Your task to perform on an android device: toggle notification dots Image 0: 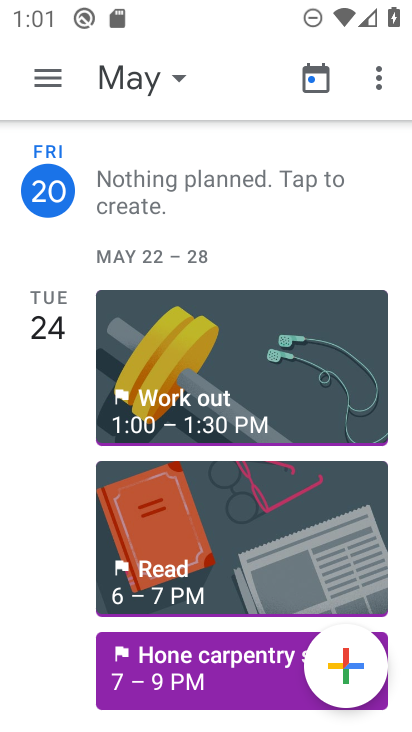
Step 0: press home button
Your task to perform on an android device: toggle notification dots Image 1: 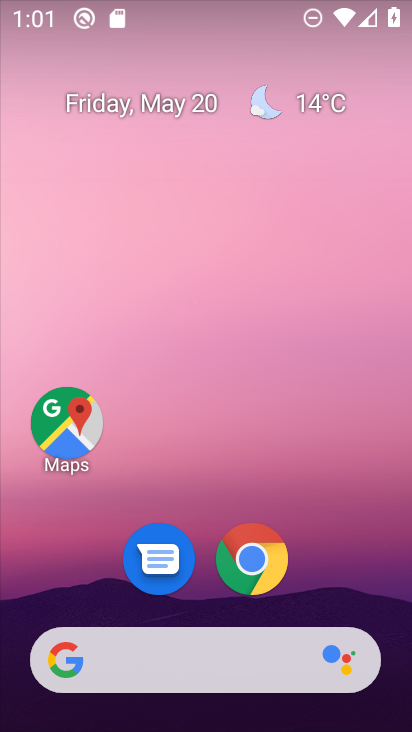
Step 1: drag from (351, 561) to (309, 129)
Your task to perform on an android device: toggle notification dots Image 2: 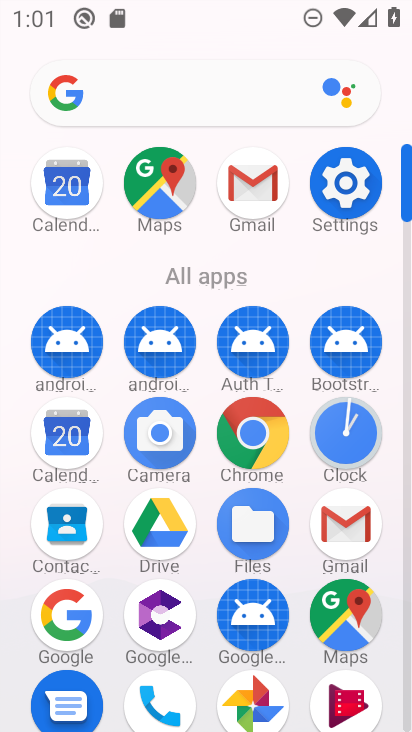
Step 2: click (342, 197)
Your task to perform on an android device: toggle notification dots Image 3: 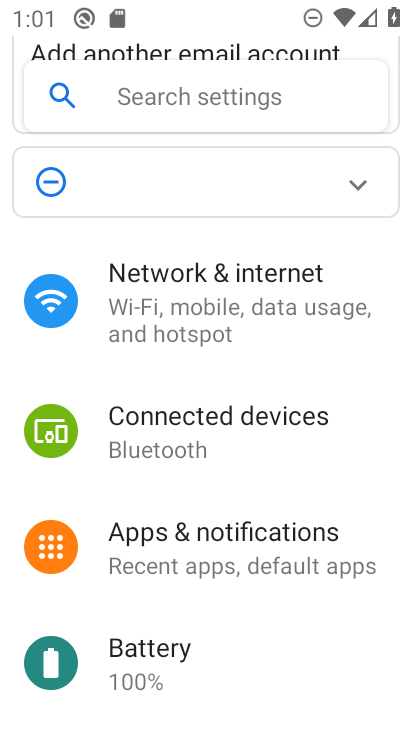
Step 3: click (208, 550)
Your task to perform on an android device: toggle notification dots Image 4: 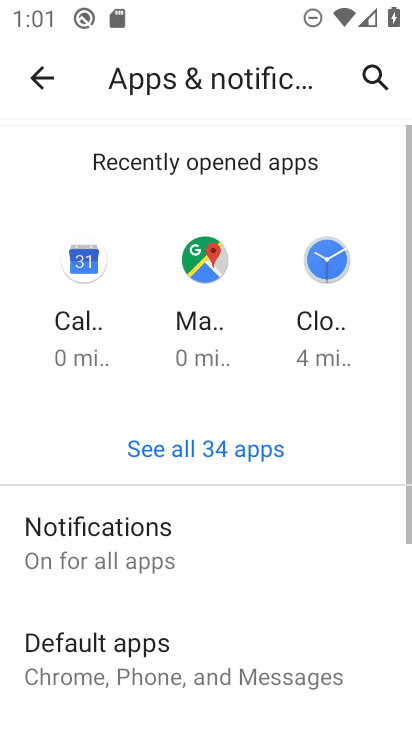
Step 4: drag from (208, 550) to (219, 160)
Your task to perform on an android device: toggle notification dots Image 5: 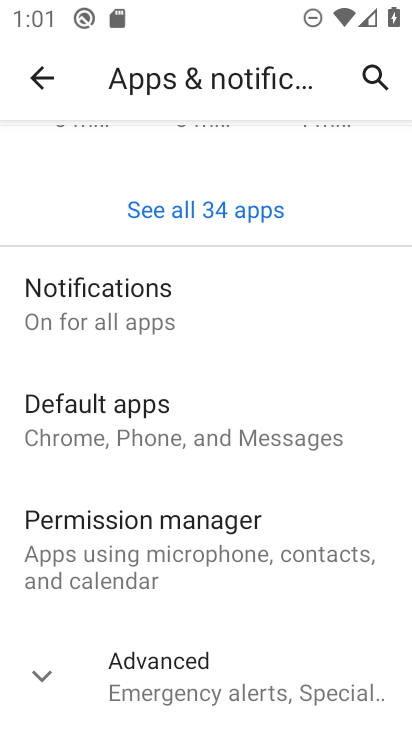
Step 5: click (142, 338)
Your task to perform on an android device: toggle notification dots Image 6: 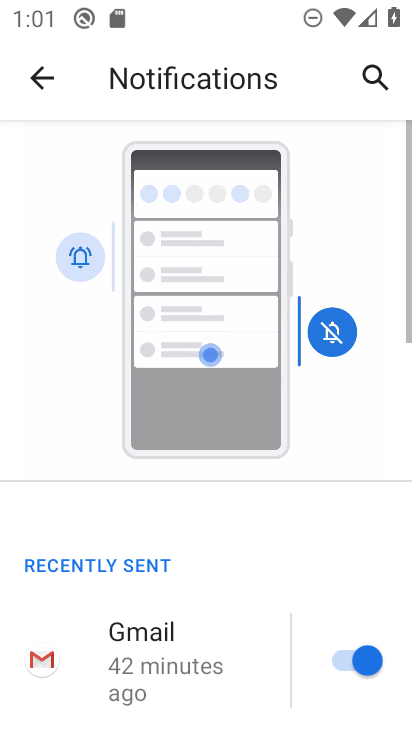
Step 6: drag from (204, 547) to (200, 240)
Your task to perform on an android device: toggle notification dots Image 7: 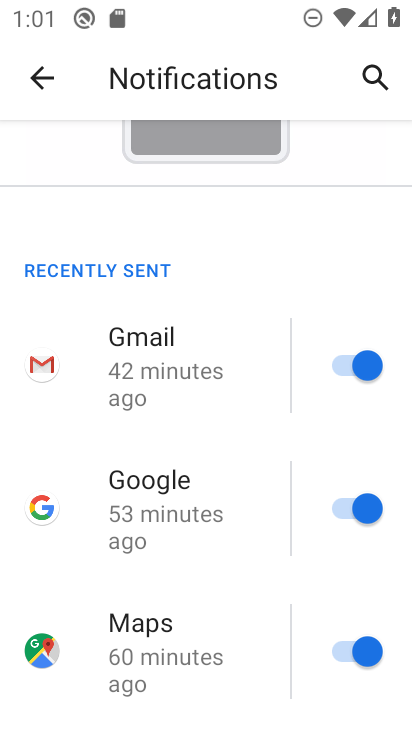
Step 7: drag from (192, 606) to (182, 113)
Your task to perform on an android device: toggle notification dots Image 8: 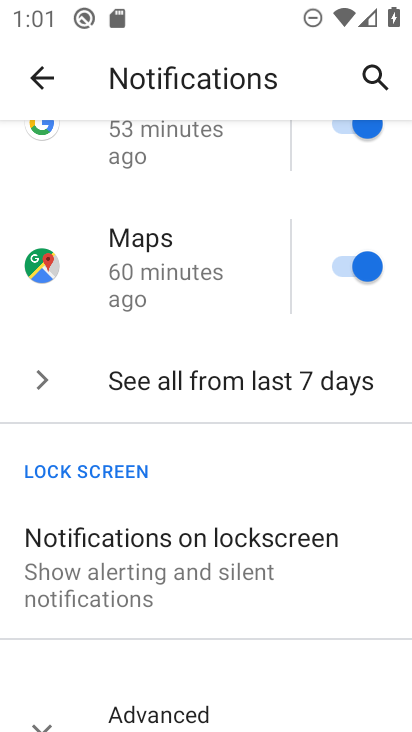
Step 8: click (174, 731)
Your task to perform on an android device: toggle notification dots Image 9: 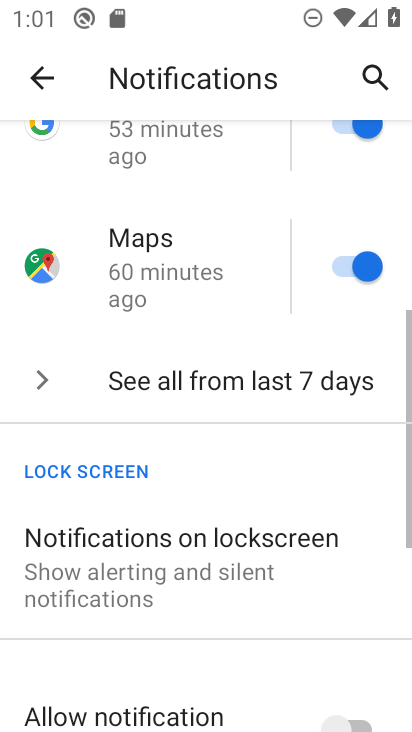
Step 9: drag from (173, 685) to (193, 451)
Your task to perform on an android device: toggle notification dots Image 10: 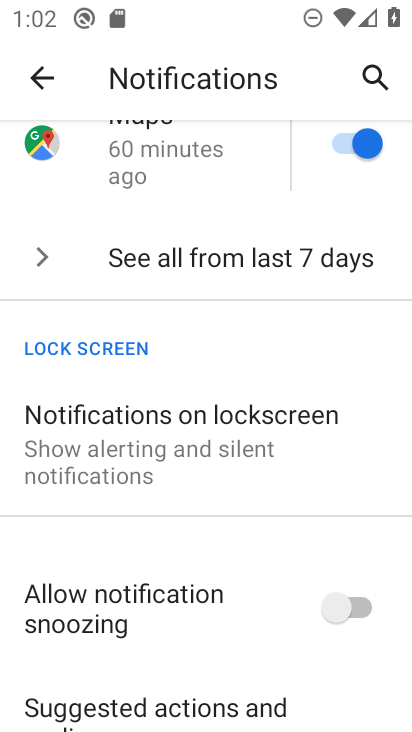
Step 10: drag from (244, 624) to (250, 352)
Your task to perform on an android device: toggle notification dots Image 11: 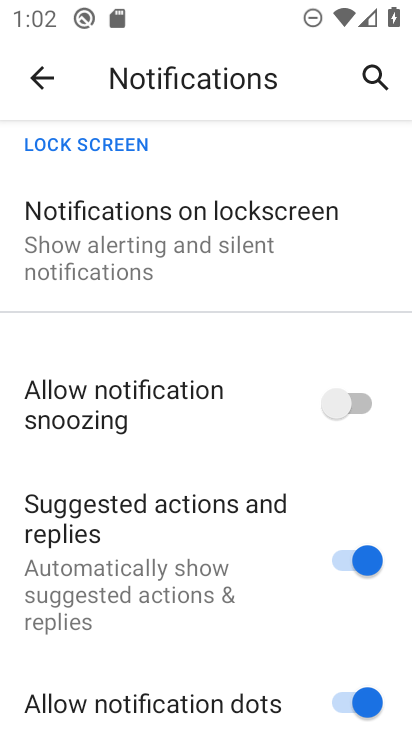
Step 11: click (246, 690)
Your task to perform on an android device: toggle notification dots Image 12: 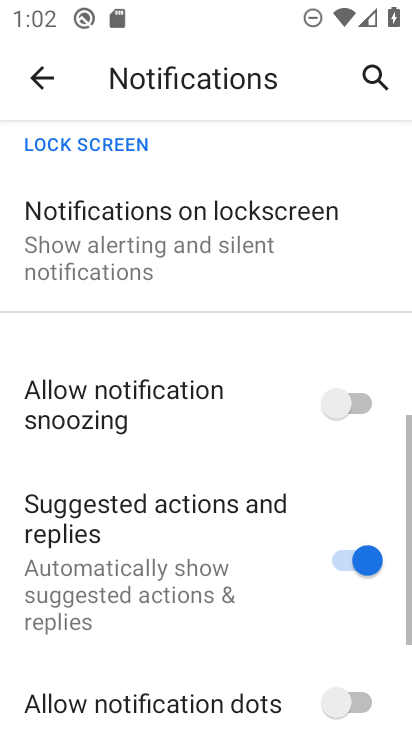
Step 12: task complete